Your task to perform on an android device: Open location settings Image 0: 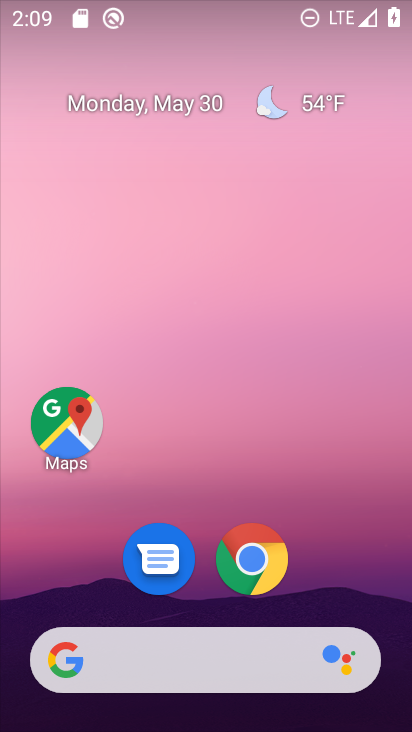
Step 0: drag from (308, 597) to (306, 94)
Your task to perform on an android device: Open location settings Image 1: 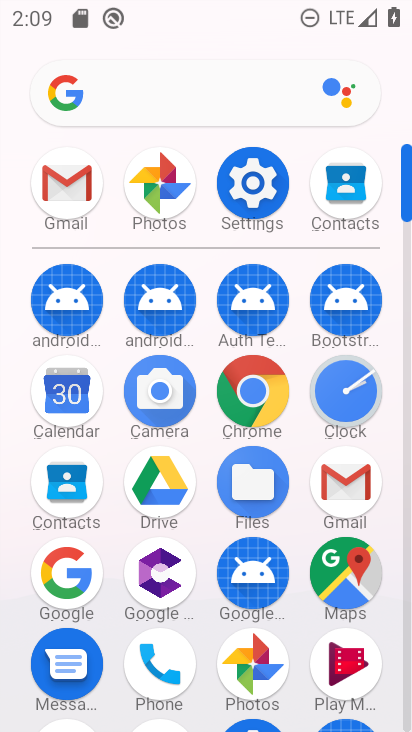
Step 1: click (265, 186)
Your task to perform on an android device: Open location settings Image 2: 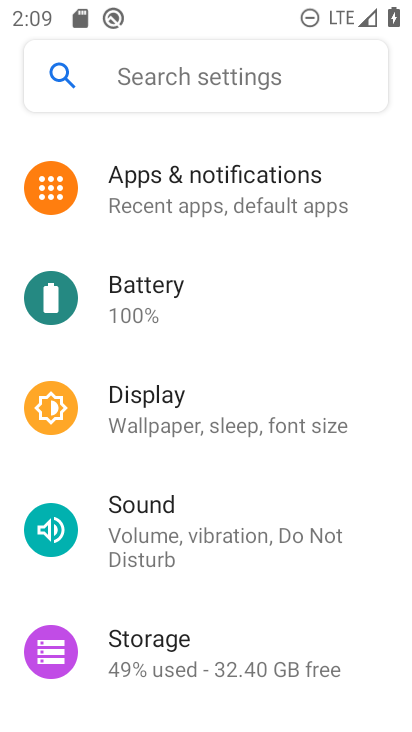
Step 2: drag from (163, 613) to (169, 233)
Your task to perform on an android device: Open location settings Image 3: 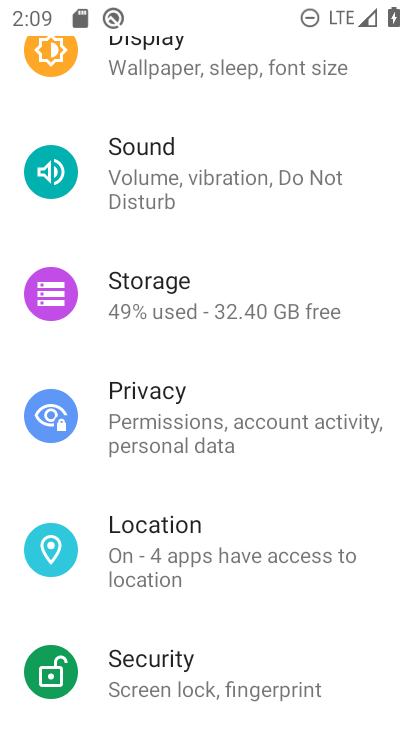
Step 3: click (180, 564)
Your task to perform on an android device: Open location settings Image 4: 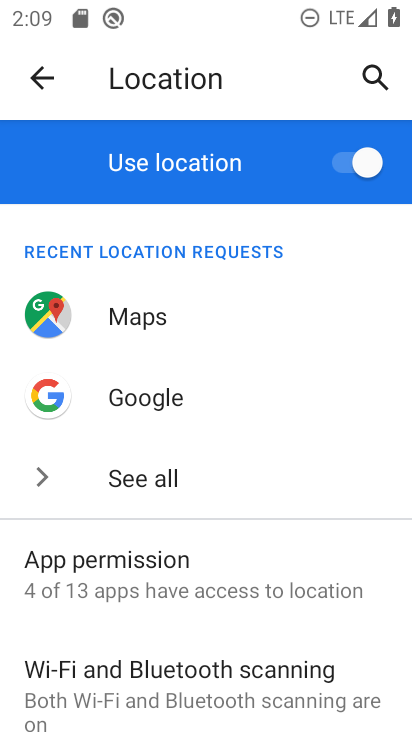
Step 4: task complete